Your task to perform on an android device: toggle notifications settings in the gmail app Image 0: 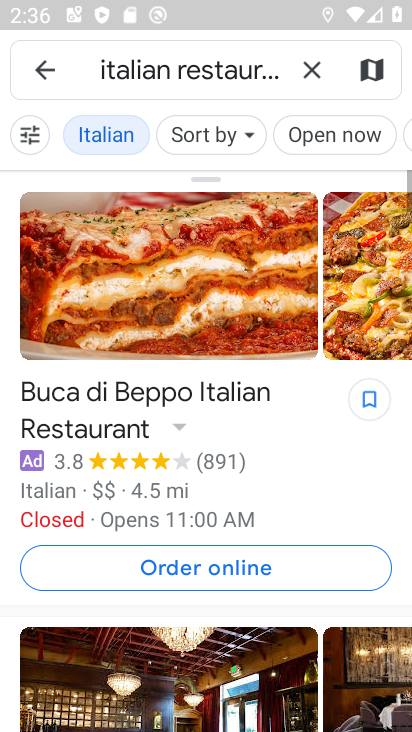
Step 0: drag from (228, 603) to (263, 247)
Your task to perform on an android device: toggle notifications settings in the gmail app Image 1: 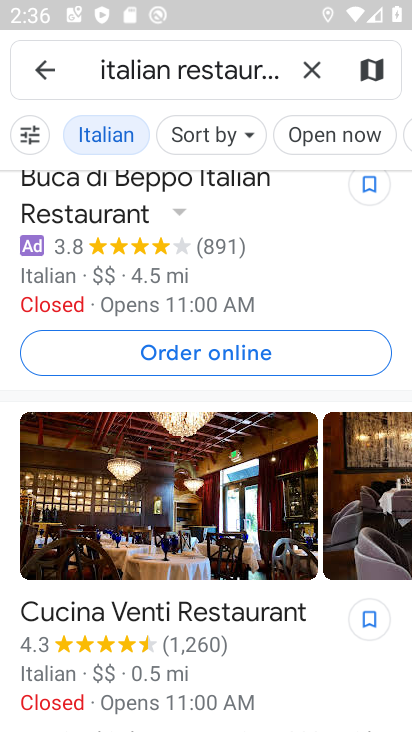
Step 1: press home button
Your task to perform on an android device: toggle notifications settings in the gmail app Image 2: 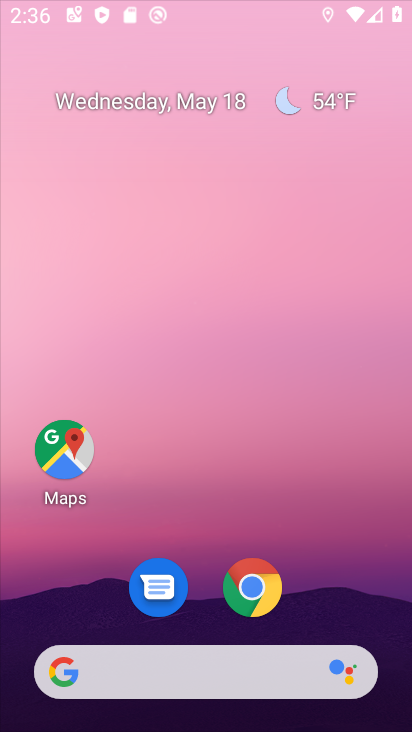
Step 2: drag from (202, 669) to (238, 311)
Your task to perform on an android device: toggle notifications settings in the gmail app Image 3: 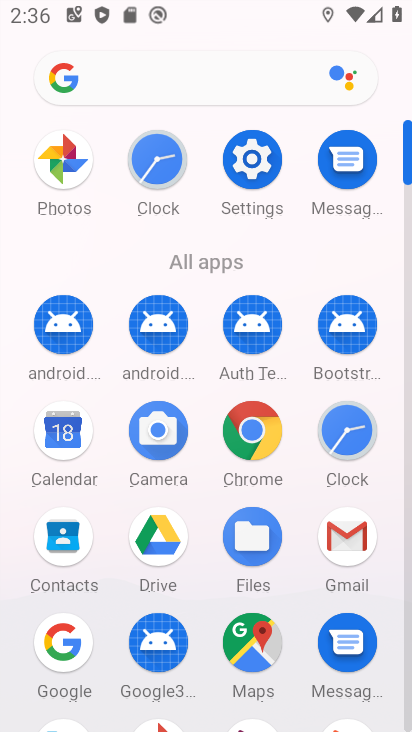
Step 3: click (327, 530)
Your task to perform on an android device: toggle notifications settings in the gmail app Image 4: 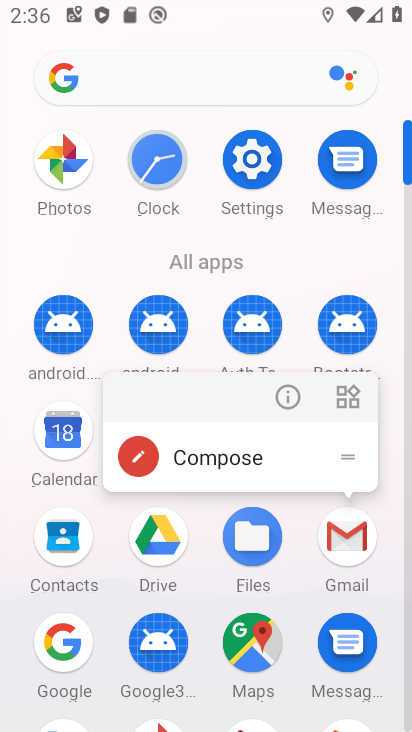
Step 4: click (280, 391)
Your task to perform on an android device: toggle notifications settings in the gmail app Image 5: 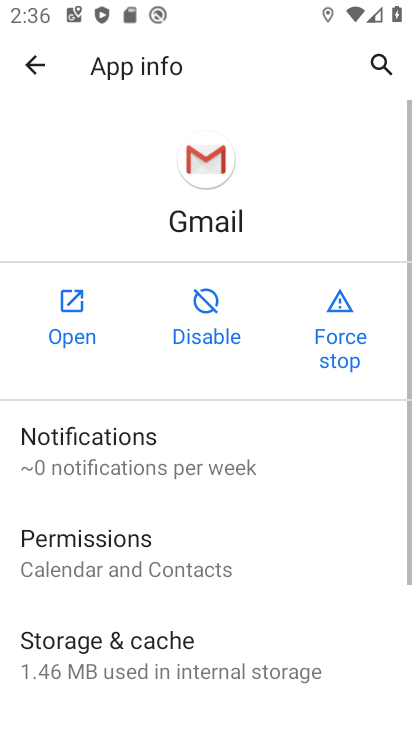
Step 5: click (86, 322)
Your task to perform on an android device: toggle notifications settings in the gmail app Image 6: 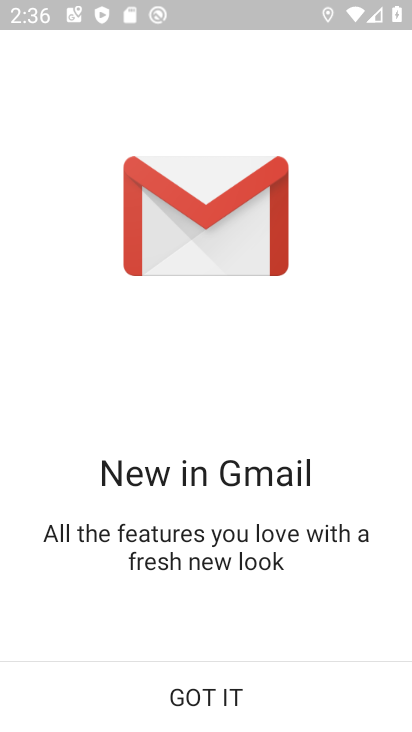
Step 6: click (190, 689)
Your task to perform on an android device: toggle notifications settings in the gmail app Image 7: 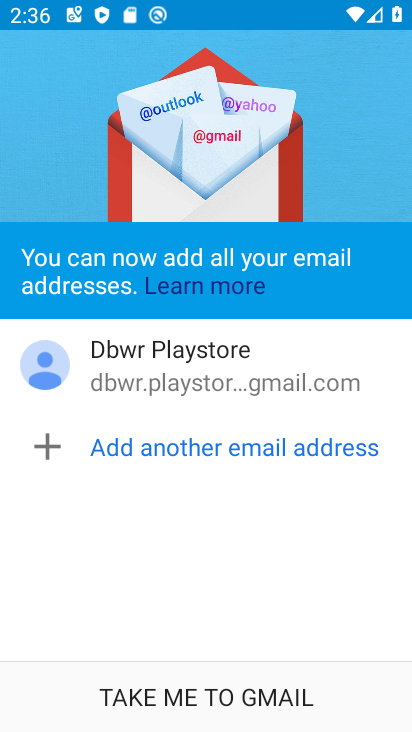
Step 7: click (184, 700)
Your task to perform on an android device: toggle notifications settings in the gmail app Image 8: 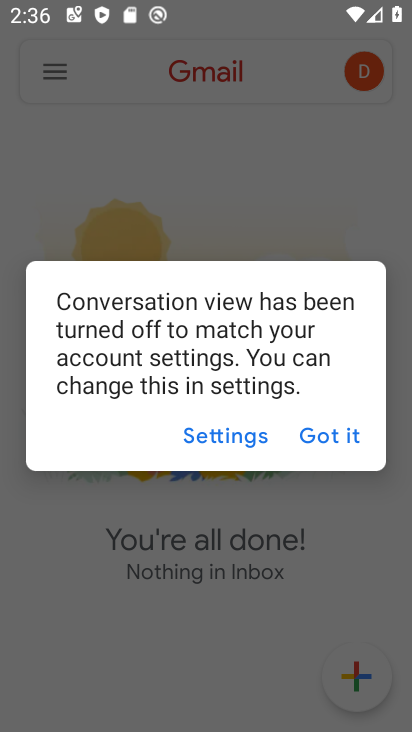
Step 8: click (323, 438)
Your task to perform on an android device: toggle notifications settings in the gmail app Image 9: 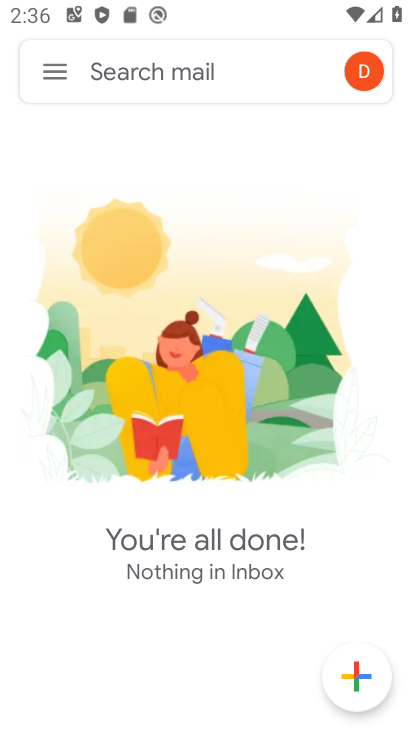
Step 9: click (45, 65)
Your task to perform on an android device: toggle notifications settings in the gmail app Image 10: 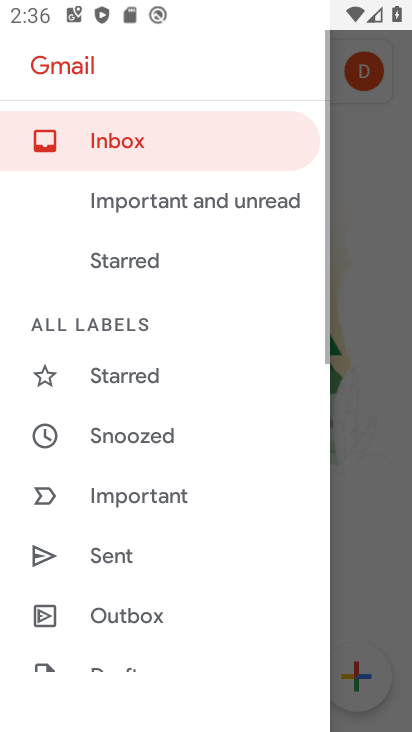
Step 10: drag from (175, 593) to (266, 37)
Your task to perform on an android device: toggle notifications settings in the gmail app Image 11: 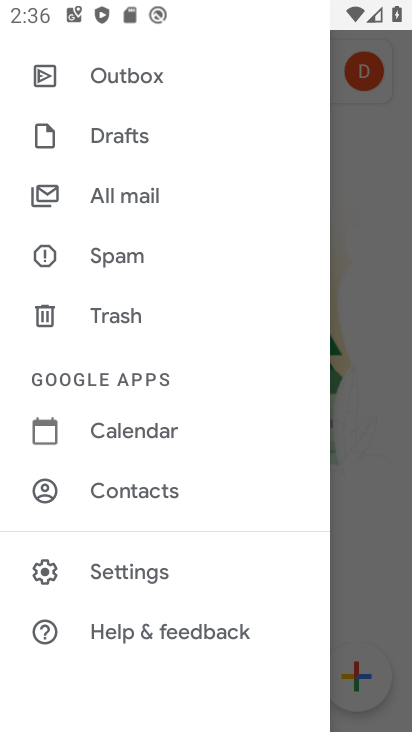
Step 11: click (148, 575)
Your task to perform on an android device: toggle notifications settings in the gmail app Image 12: 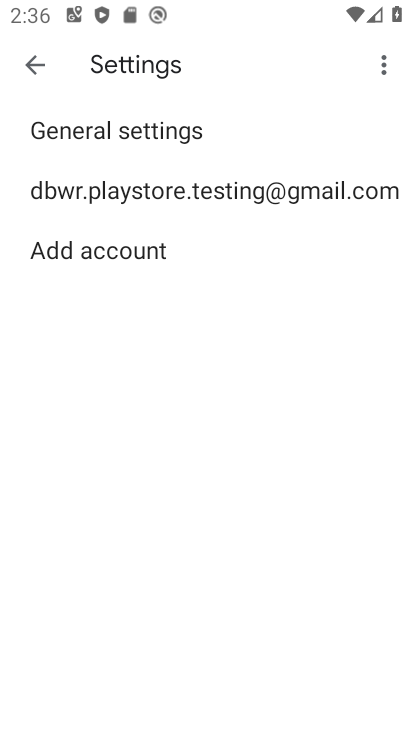
Step 12: click (174, 192)
Your task to perform on an android device: toggle notifications settings in the gmail app Image 13: 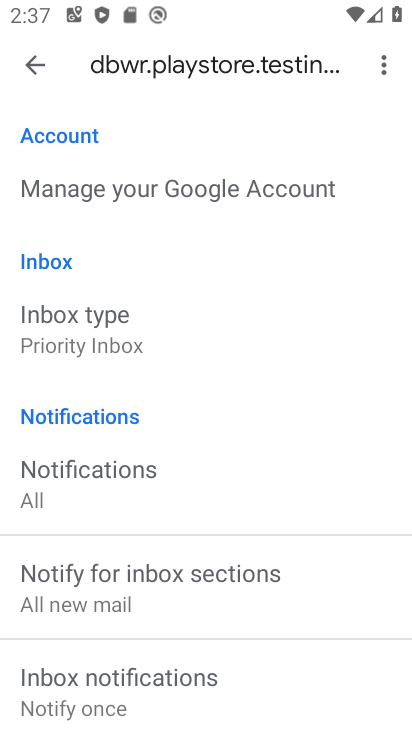
Step 13: drag from (167, 564) to (218, 160)
Your task to perform on an android device: toggle notifications settings in the gmail app Image 14: 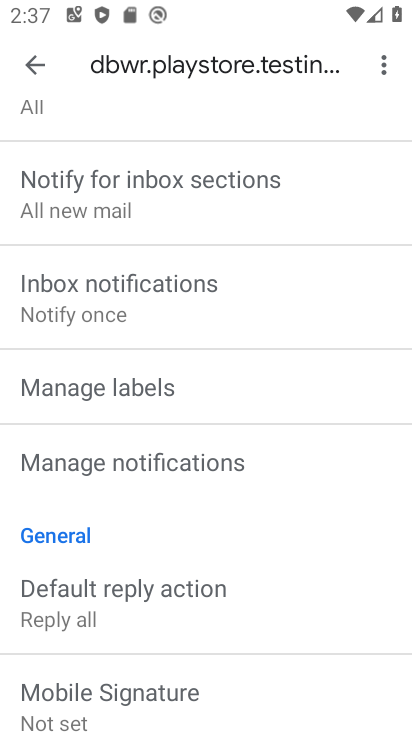
Step 14: click (159, 464)
Your task to perform on an android device: toggle notifications settings in the gmail app Image 15: 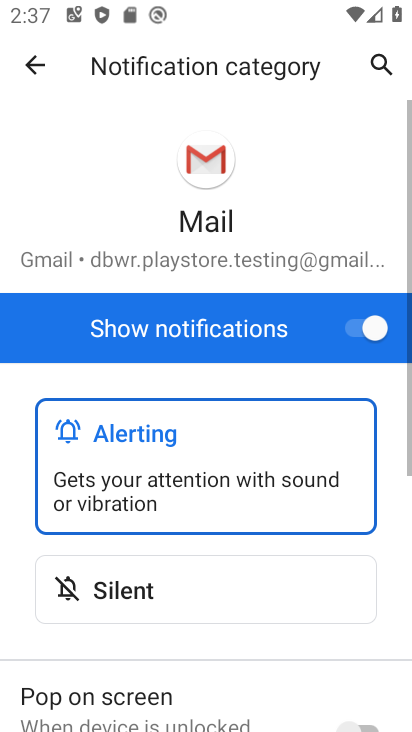
Step 15: click (345, 332)
Your task to perform on an android device: toggle notifications settings in the gmail app Image 16: 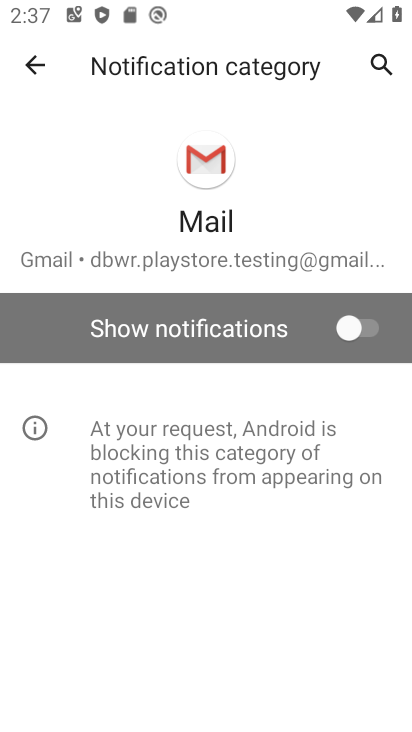
Step 16: task complete